Your task to perform on an android device: Open calendar and show me the second week of next month Image 0: 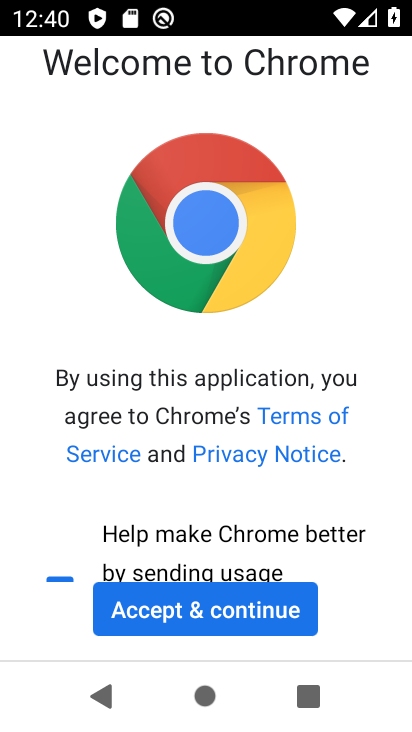
Step 0: press back button
Your task to perform on an android device: Open calendar and show me the second week of next month Image 1: 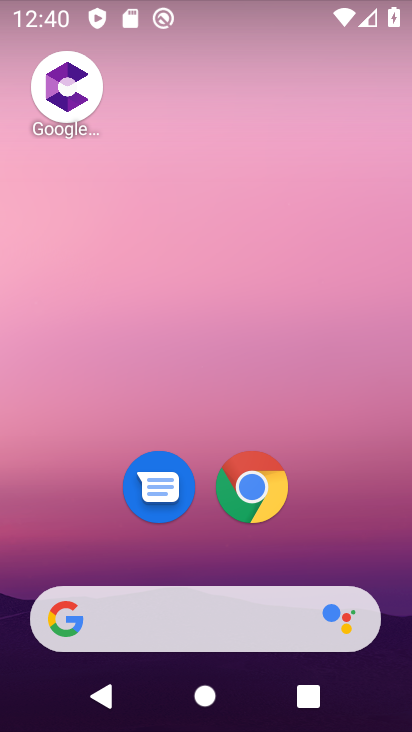
Step 1: drag from (118, 557) to (199, 51)
Your task to perform on an android device: Open calendar and show me the second week of next month Image 2: 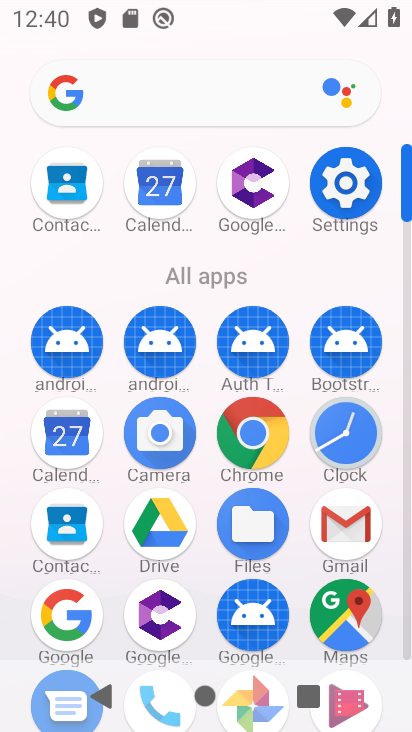
Step 2: click (157, 181)
Your task to perform on an android device: Open calendar and show me the second week of next month Image 3: 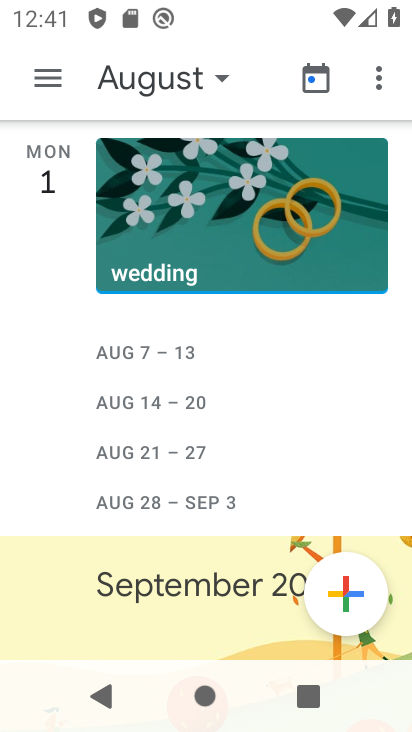
Step 3: click (212, 73)
Your task to perform on an android device: Open calendar and show me the second week of next month Image 4: 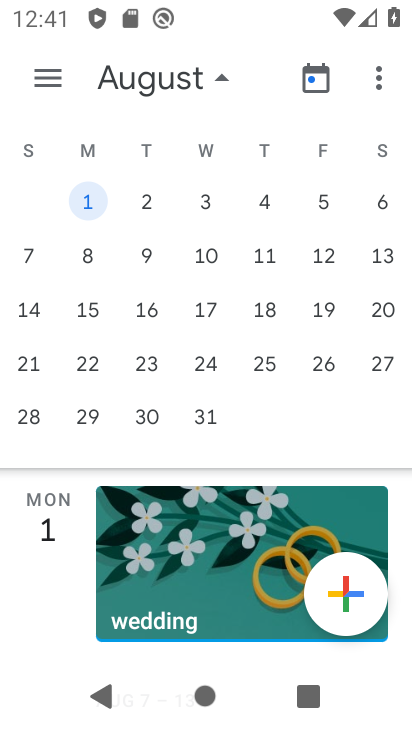
Step 4: click (94, 264)
Your task to perform on an android device: Open calendar and show me the second week of next month Image 5: 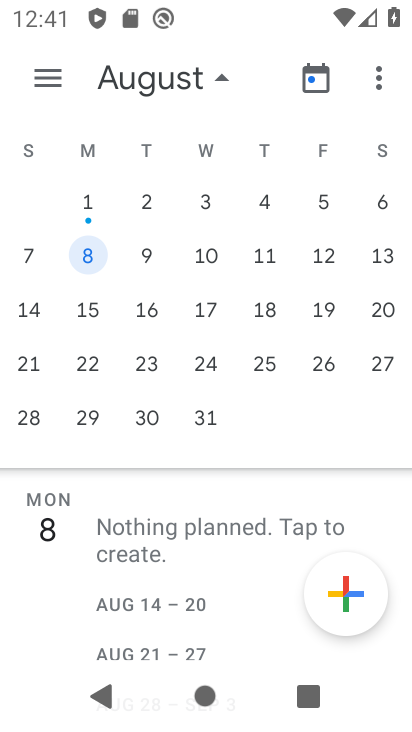
Step 5: task complete